Your task to perform on an android device: open the mobile data screen to see how much data has been used Image 0: 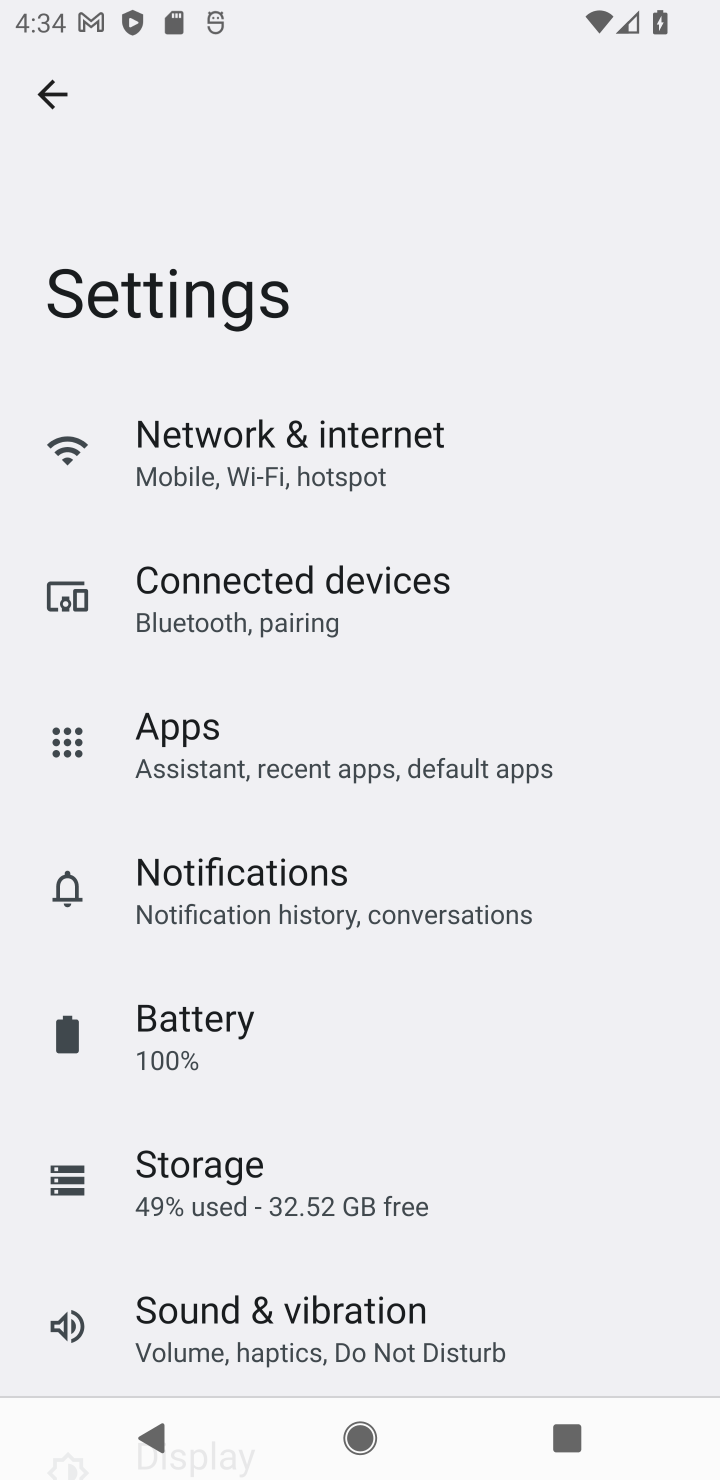
Step 0: press home button
Your task to perform on an android device: open the mobile data screen to see how much data has been used Image 1: 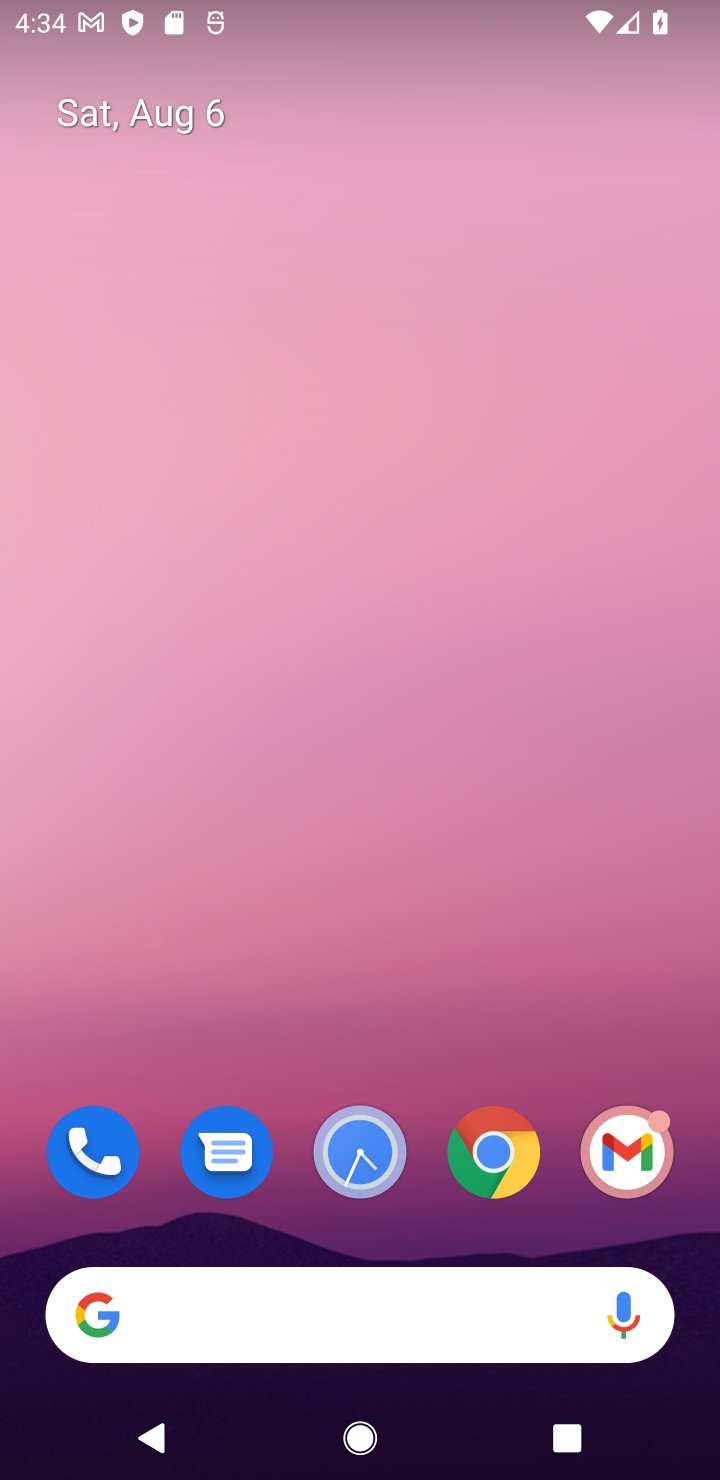
Step 1: drag from (547, 840) to (443, 27)
Your task to perform on an android device: open the mobile data screen to see how much data has been used Image 2: 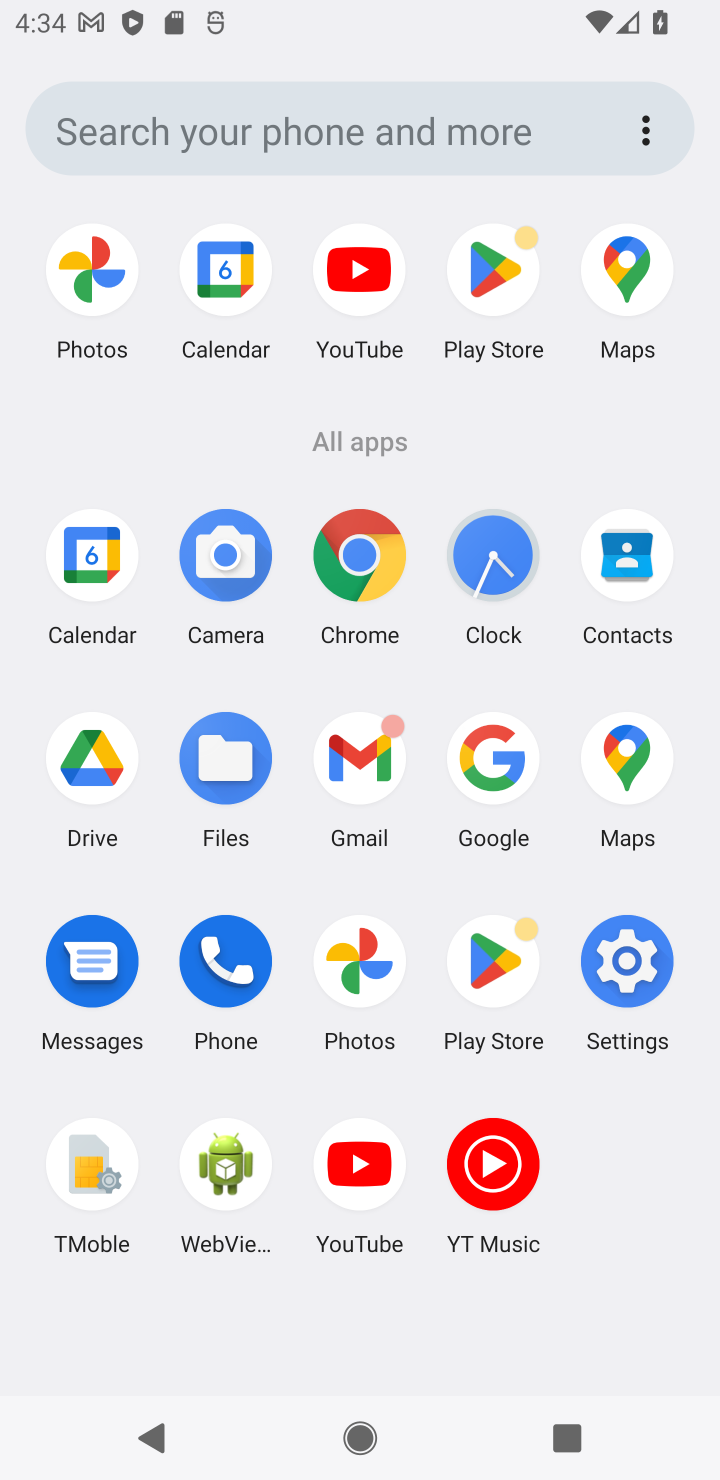
Step 2: click (647, 967)
Your task to perform on an android device: open the mobile data screen to see how much data has been used Image 3: 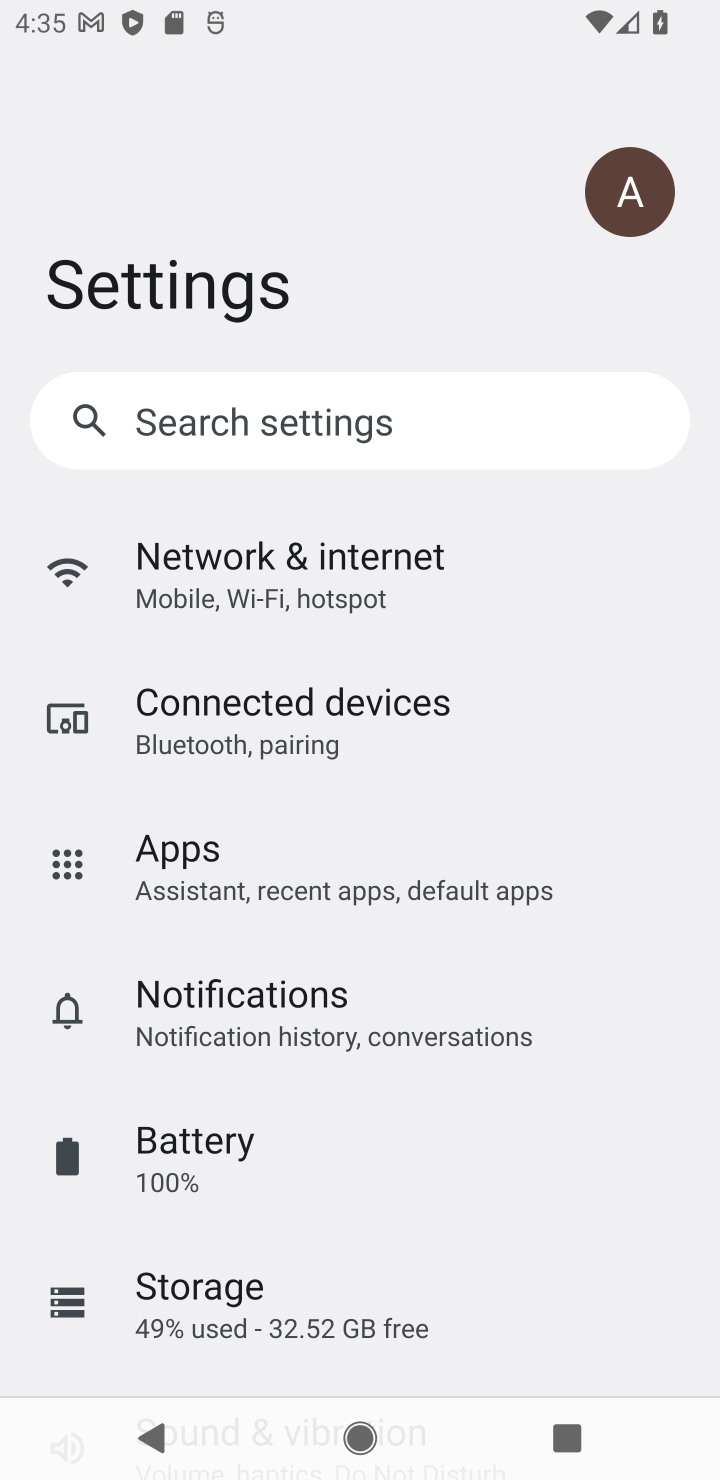
Step 3: click (138, 596)
Your task to perform on an android device: open the mobile data screen to see how much data has been used Image 4: 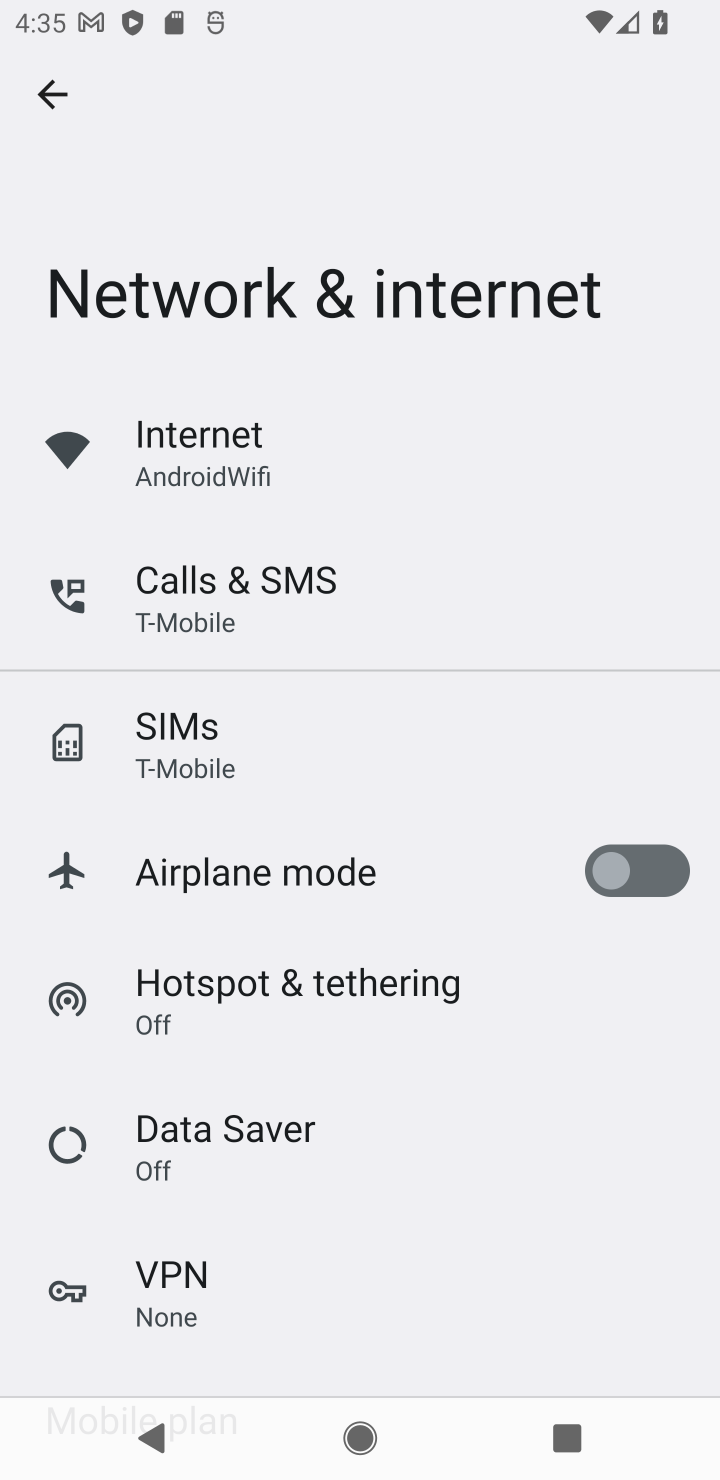
Step 4: click (230, 447)
Your task to perform on an android device: open the mobile data screen to see how much data has been used Image 5: 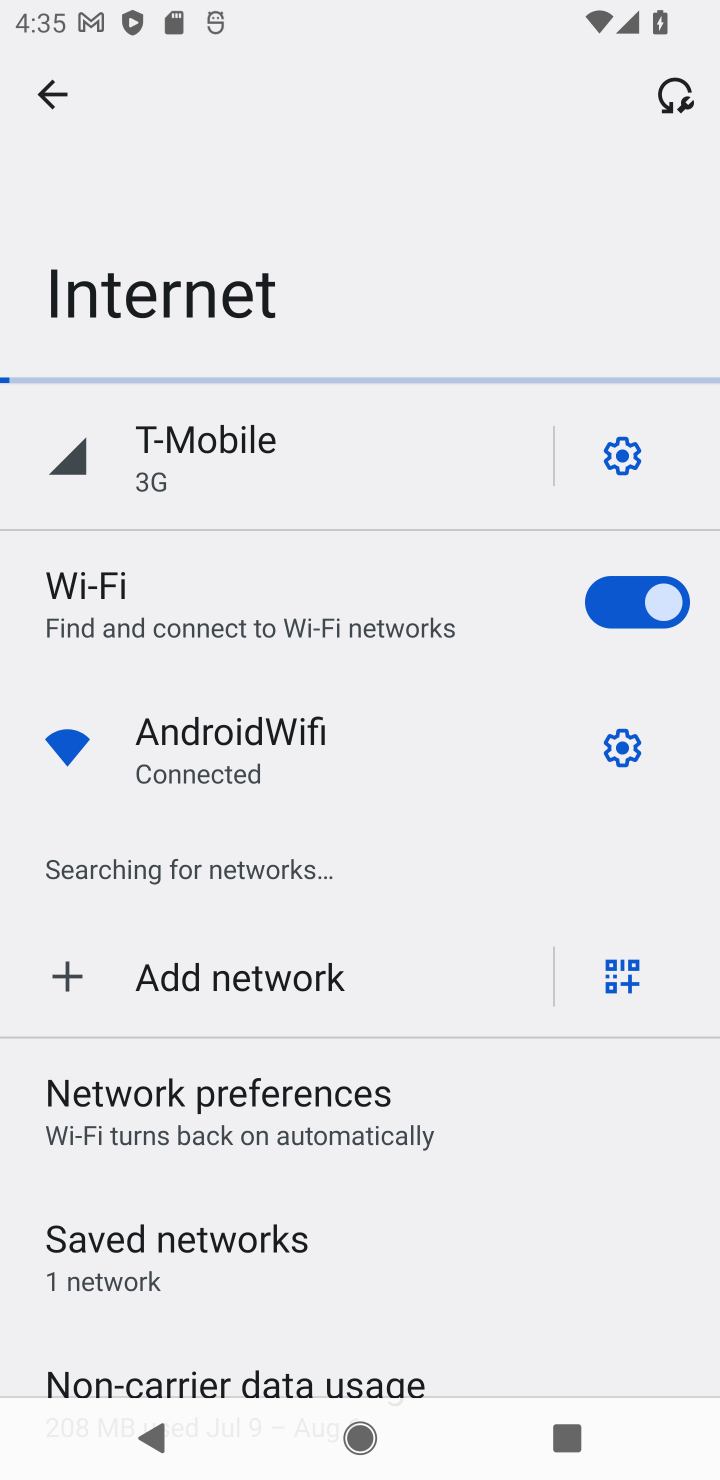
Step 5: click (641, 458)
Your task to perform on an android device: open the mobile data screen to see how much data has been used Image 6: 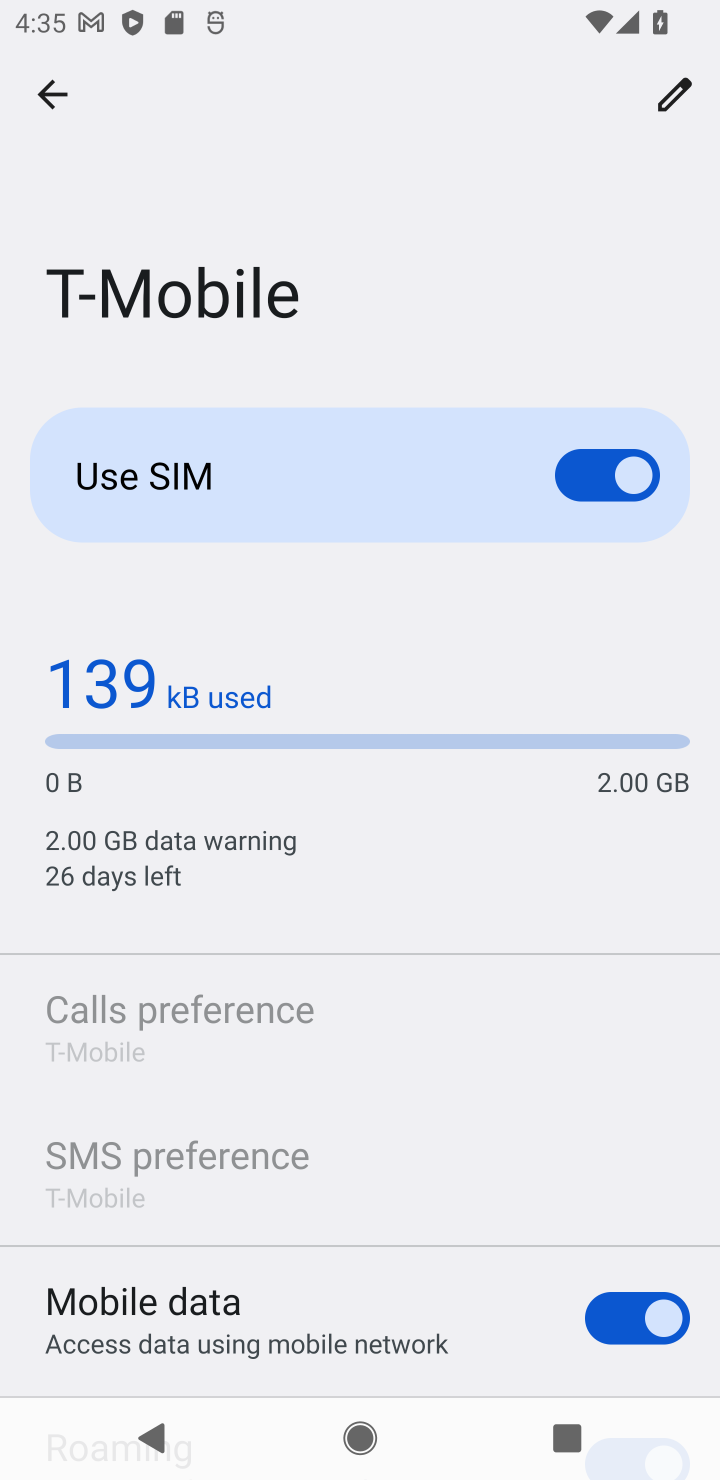
Step 6: task complete